Your task to perform on an android device: check storage Image 0: 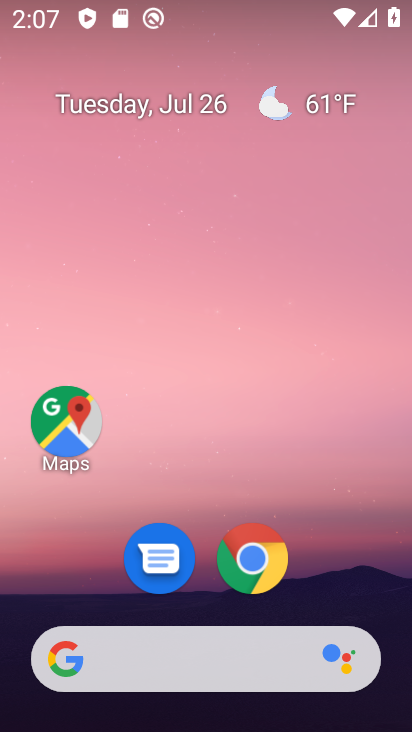
Step 0: drag from (88, 564) to (236, 8)
Your task to perform on an android device: check storage Image 1: 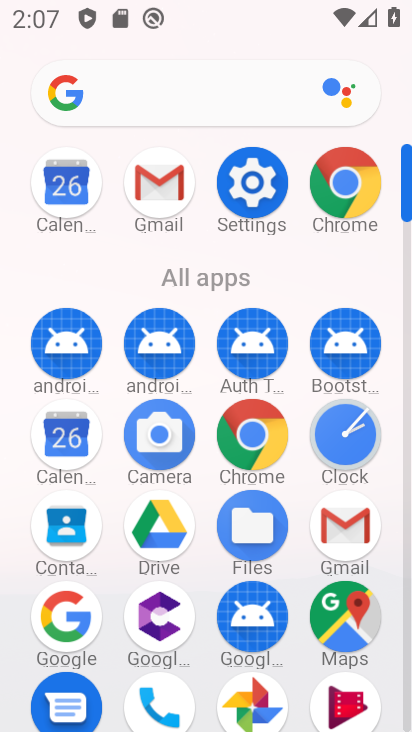
Step 1: click (267, 184)
Your task to perform on an android device: check storage Image 2: 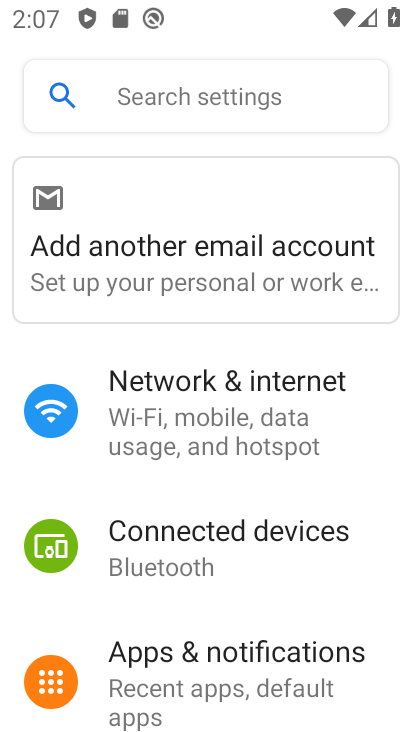
Step 2: drag from (214, 702) to (286, 117)
Your task to perform on an android device: check storage Image 3: 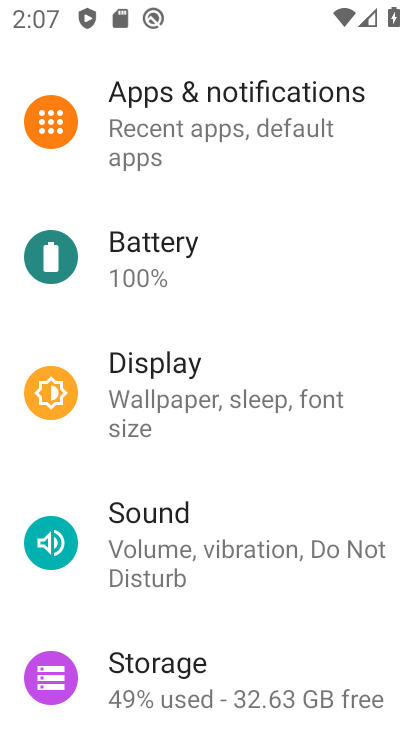
Step 3: drag from (178, 625) to (269, 127)
Your task to perform on an android device: check storage Image 4: 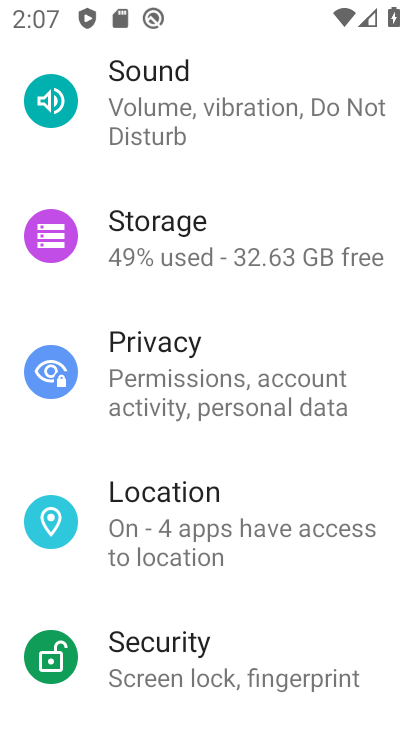
Step 4: click (143, 258)
Your task to perform on an android device: check storage Image 5: 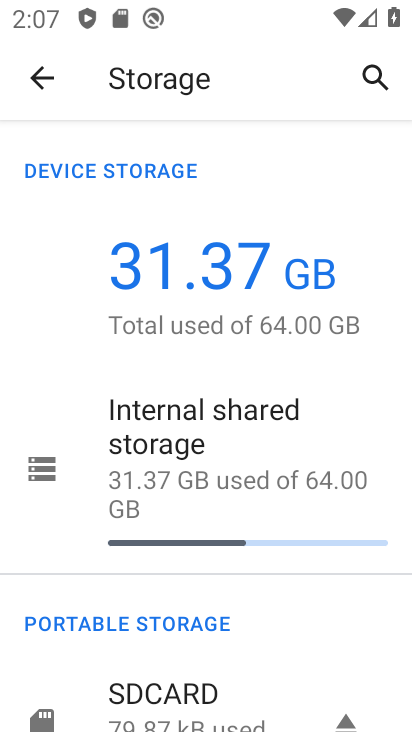
Step 5: task complete